Your task to perform on an android device: Open display settings Image 0: 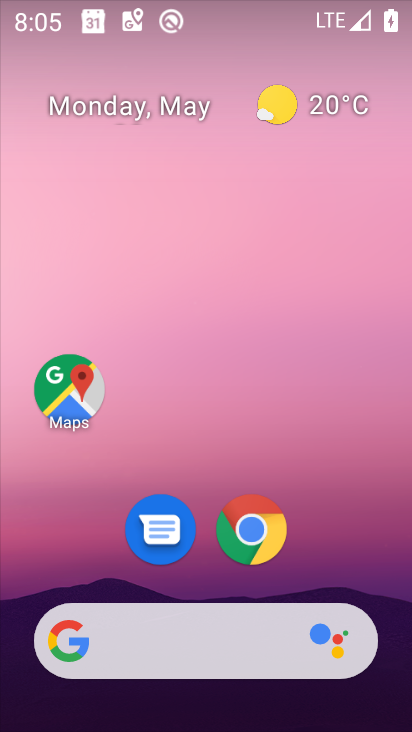
Step 0: drag from (2, 639) to (152, 268)
Your task to perform on an android device: Open display settings Image 1: 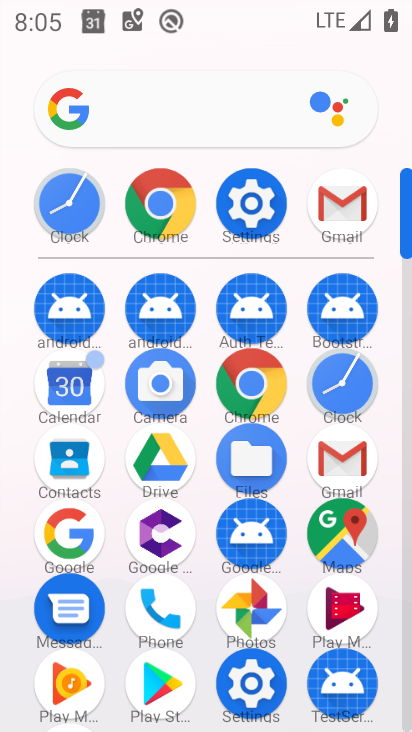
Step 1: click (235, 210)
Your task to perform on an android device: Open display settings Image 2: 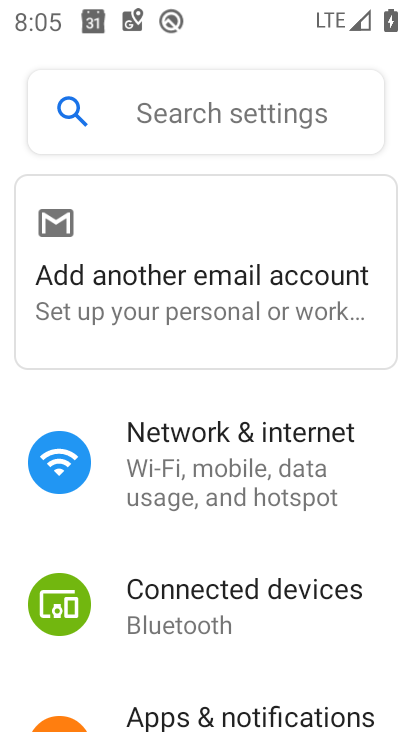
Step 2: drag from (89, 669) to (302, 244)
Your task to perform on an android device: Open display settings Image 3: 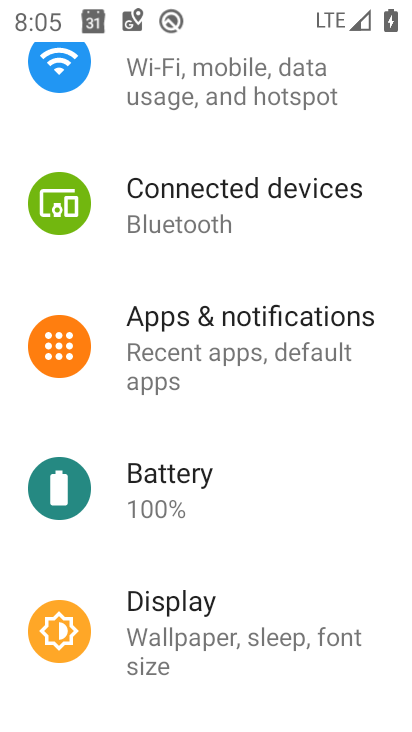
Step 3: click (154, 632)
Your task to perform on an android device: Open display settings Image 4: 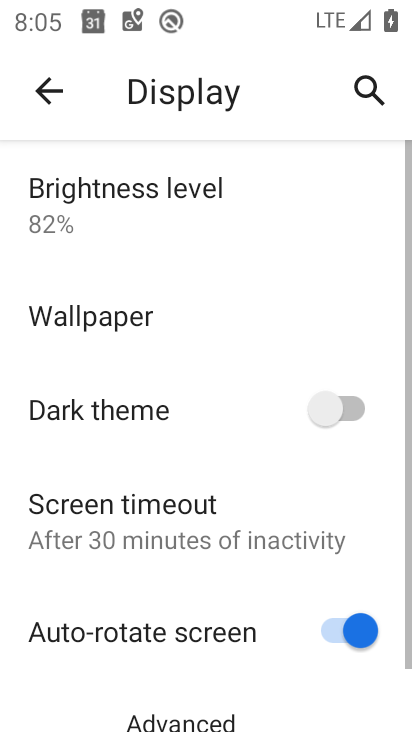
Step 4: click (160, 612)
Your task to perform on an android device: Open display settings Image 5: 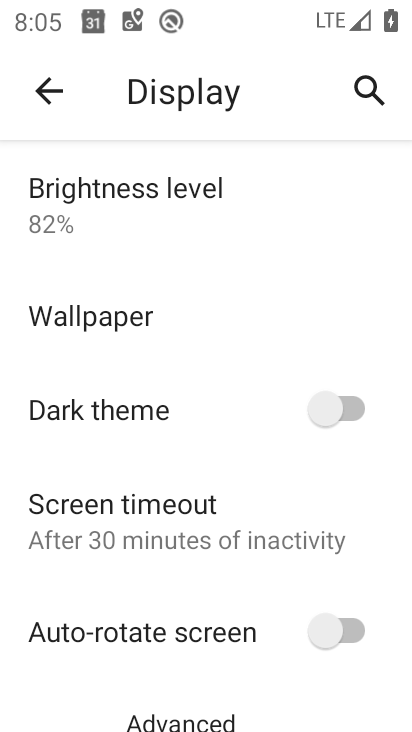
Step 5: task complete